Your task to perform on an android device: Go to Yahoo.com Image 0: 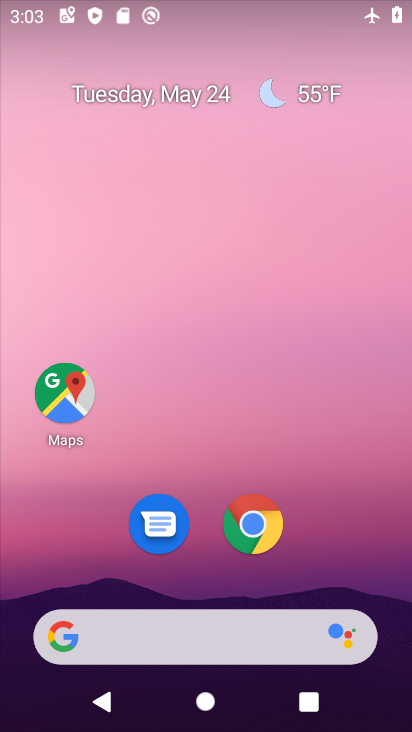
Step 0: click (231, 643)
Your task to perform on an android device: Go to Yahoo.com Image 1: 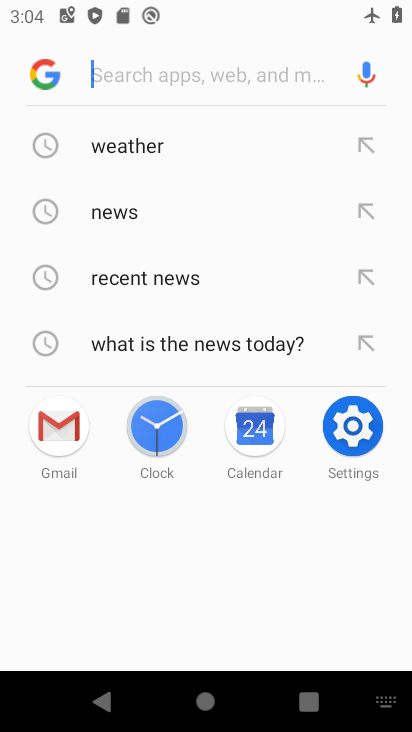
Step 1: type "yahoo.com"
Your task to perform on an android device: Go to Yahoo.com Image 2: 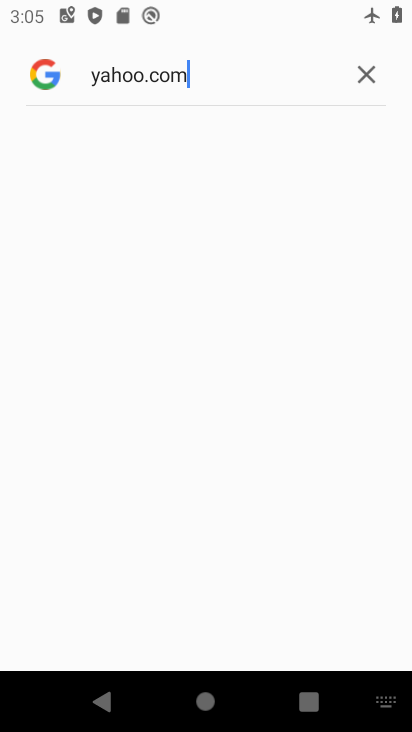
Step 2: task complete